Your task to perform on an android device: turn notification dots on Image 0: 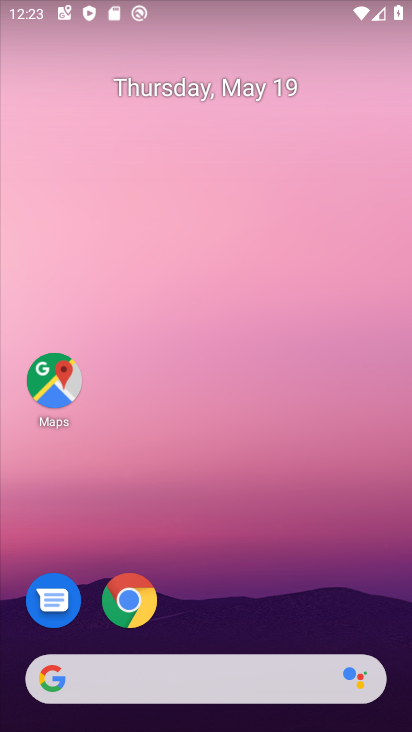
Step 0: drag from (307, 551) to (202, 67)
Your task to perform on an android device: turn notification dots on Image 1: 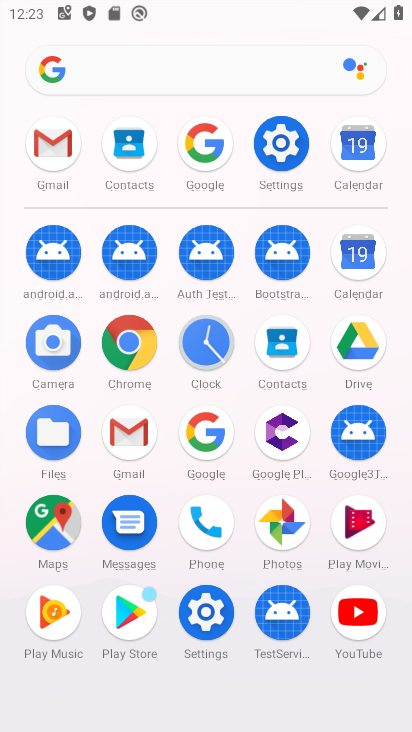
Step 1: click (297, 158)
Your task to perform on an android device: turn notification dots on Image 2: 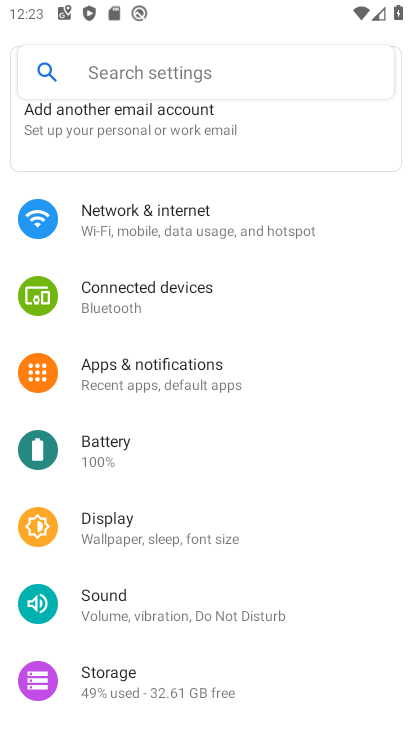
Step 2: click (201, 362)
Your task to perform on an android device: turn notification dots on Image 3: 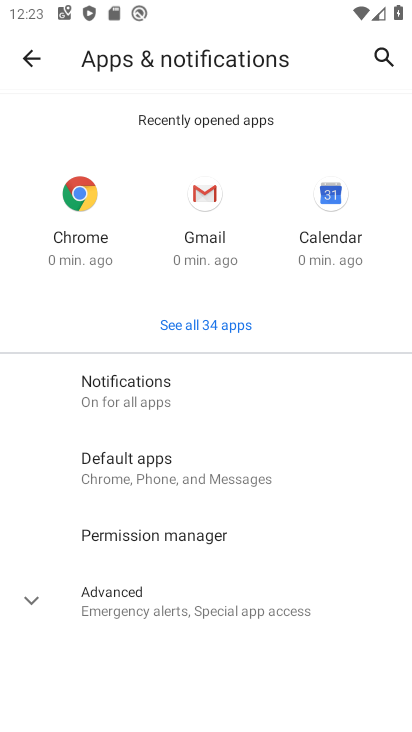
Step 3: click (203, 381)
Your task to perform on an android device: turn notification dots on Image 4: 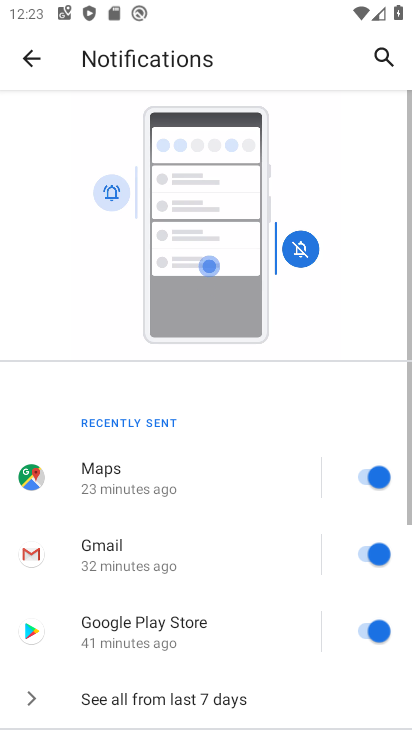
Step 4: drag from (271, 640) to (281, 275)
Your task to perform on an android device: turn notification dots on Image 5: 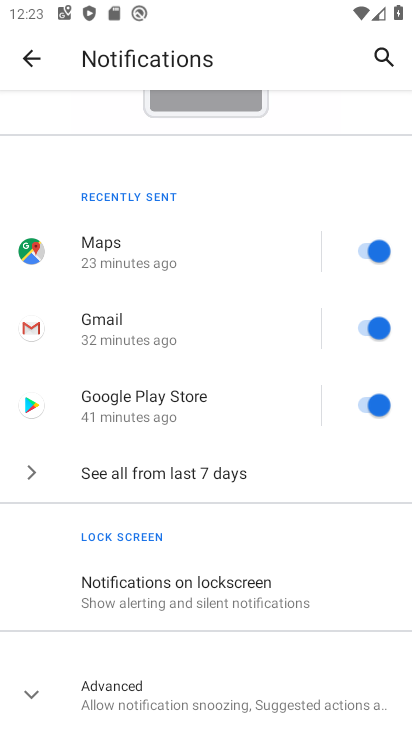
Step 5: click (377, 411)
Your task to perform on an android device: turn notification dots on Image 6: 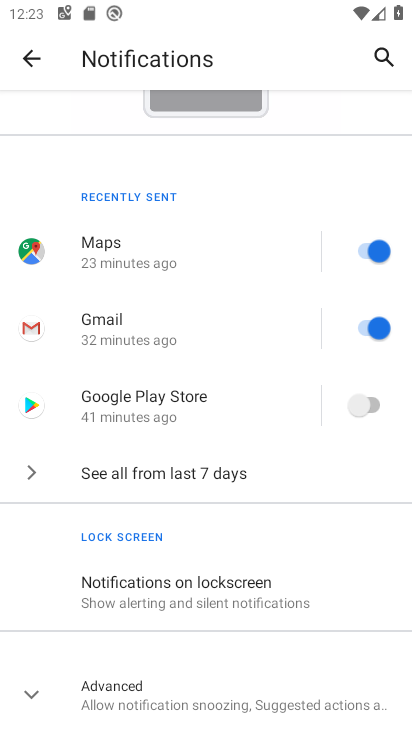
Step 6: click (377, 411)
Your task to perform on an android device: turn notification dots on Image 7: 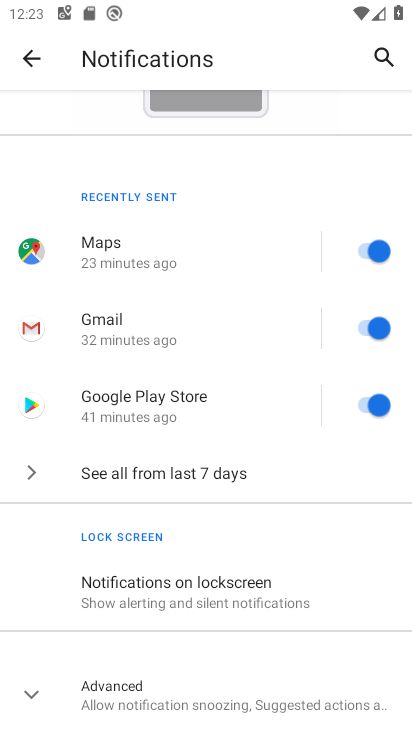
Step 7: task complete